Your task to perform on an android device: toggle notification dots Image 0: 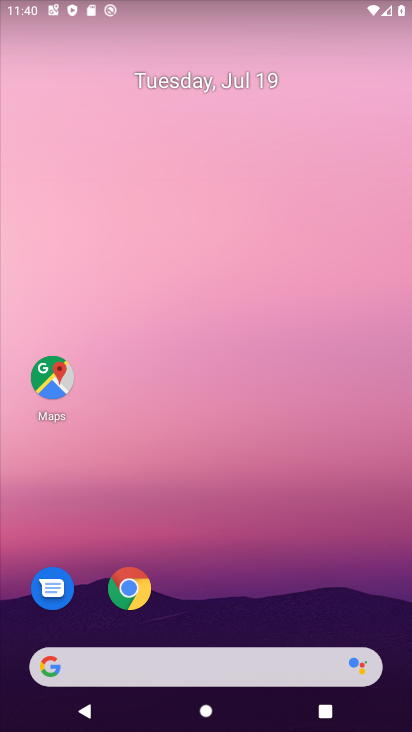
Step 0: drag from (197, 577) to (214, 176)
Your task to perform on an android device: toggle notification dots Image 1: 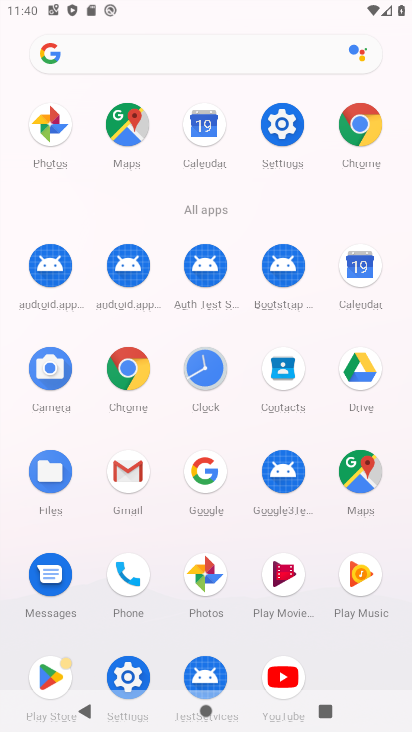
Step 1: click (128, 670)
Your task to perform on an android device: toggle notification dots Image 2: 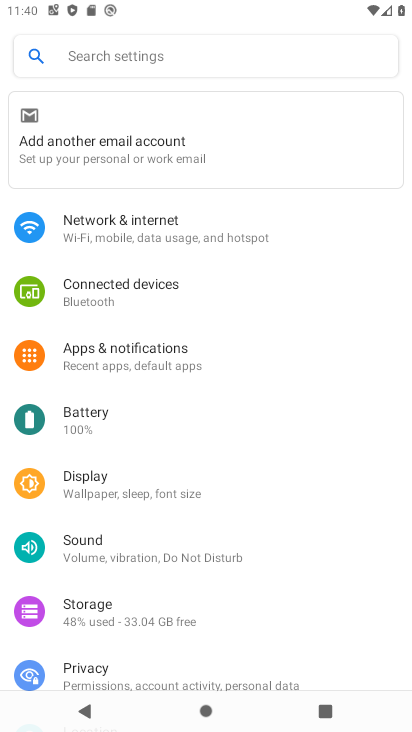
Step 2: click (169, 359)
Your task to perform on an android device: toggle notification dots Image 3: 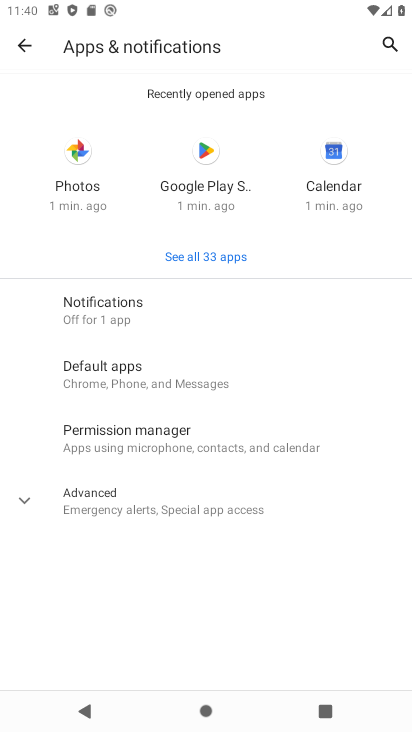
Step 3: click (120, 320)
Your task to perform on an android device: toggle notification dots Image 4: 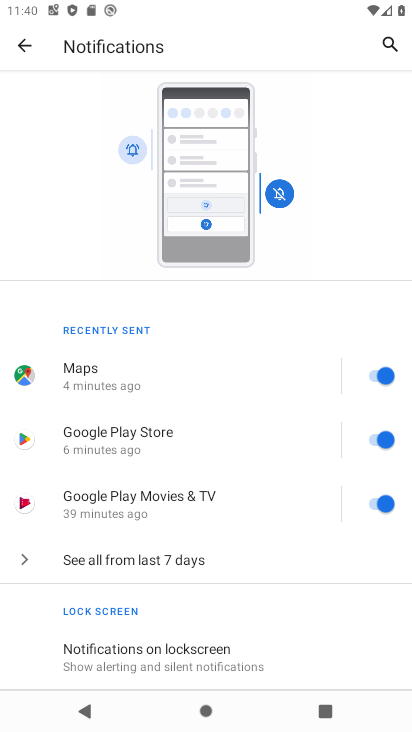
Step 4: drag from (174, 637) to (233, 207)
Your task to perform on an android device: toggle notification dots Image 5: 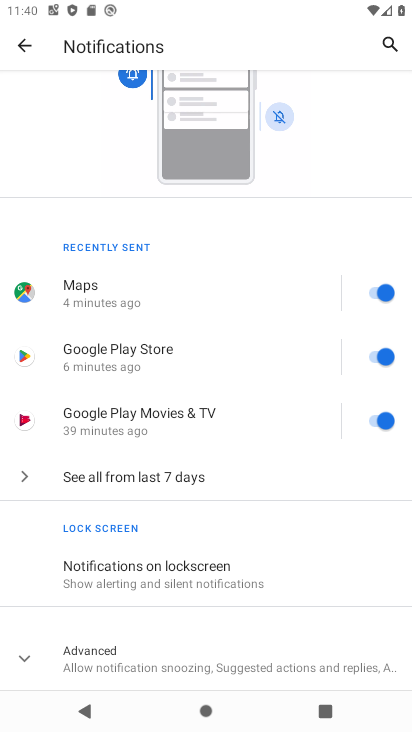
Step 5: click (85, 653)
Your task to perform on an android device: toggle notification dots Image 6: 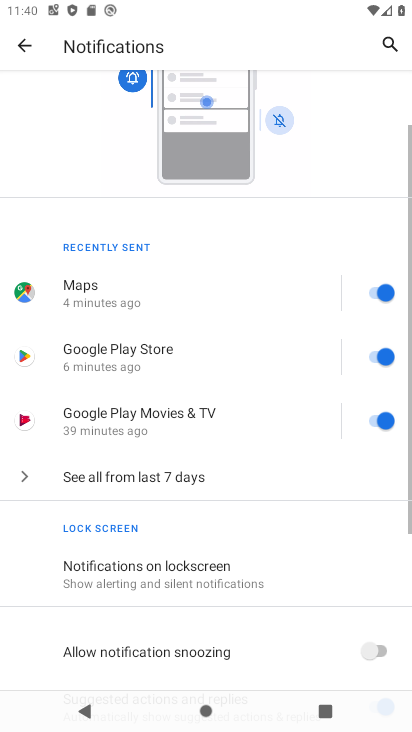
Step 6: drag from (144, 655) to (256, 203)
Your task to perform on an android device: toggle notification dots Image 7: 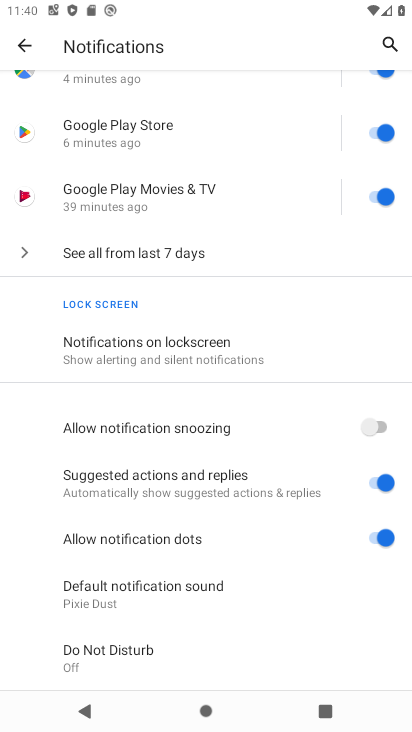
Step 7: click (364, 533)
Your task to perform on an android device: toggle notification dots Image 8: 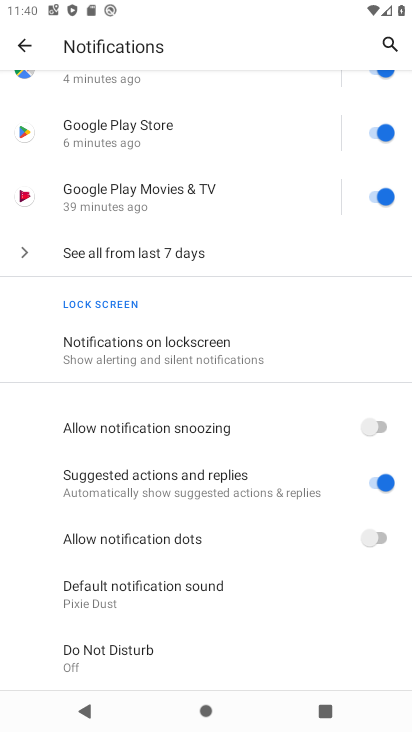
Step 8: task complete